Your task to perform on an android device: turn on the 12-hour format for clock Image 0: 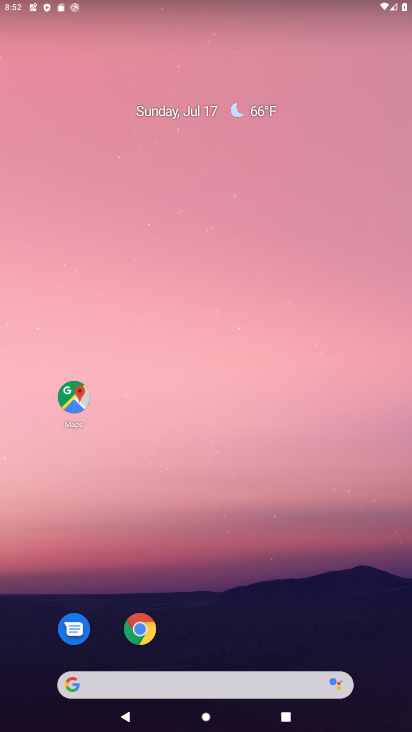
Step 0: press home button
Your task to perform on an android device: turn on the 12-hour format for clock Image 1: 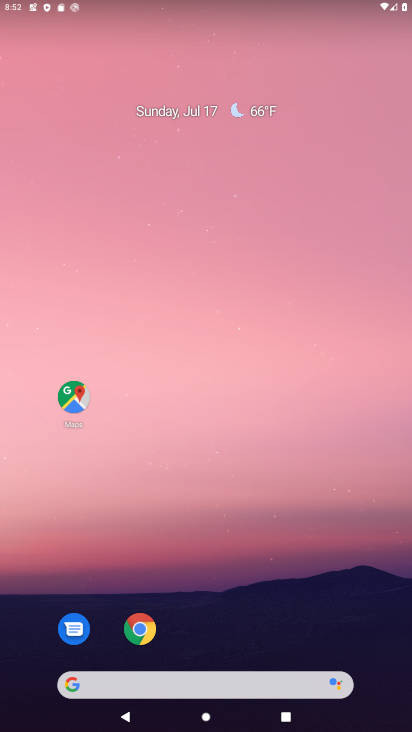
Step 1: drag from (213, 646) to (263, 17)
Your task to perform on an android device: turn on the 12-hour format for clock Image 2: 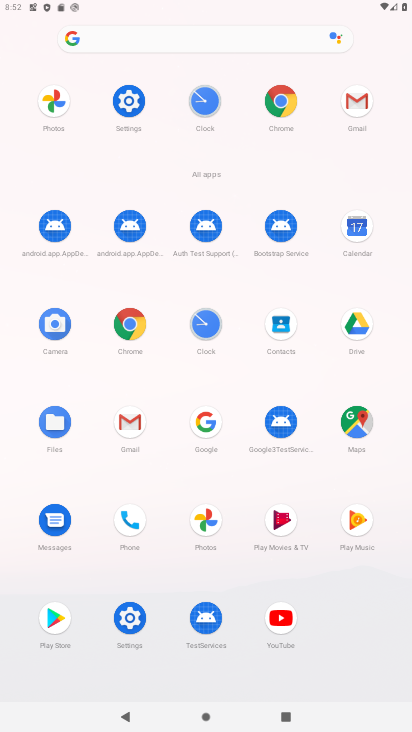
Step 2: click (207, 315)
Your task to perform on an android device: turn on the 12-hour format for clock Image 3: 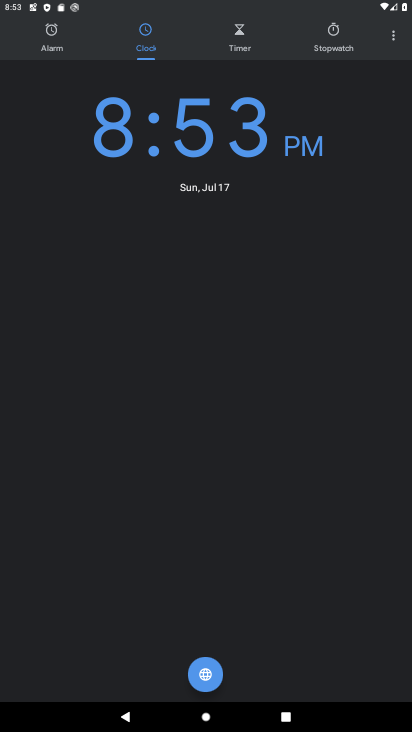
Step 3: click (394, 36)
Your task to perform on an android device: turn on the 12-hour format for clock Image 4: 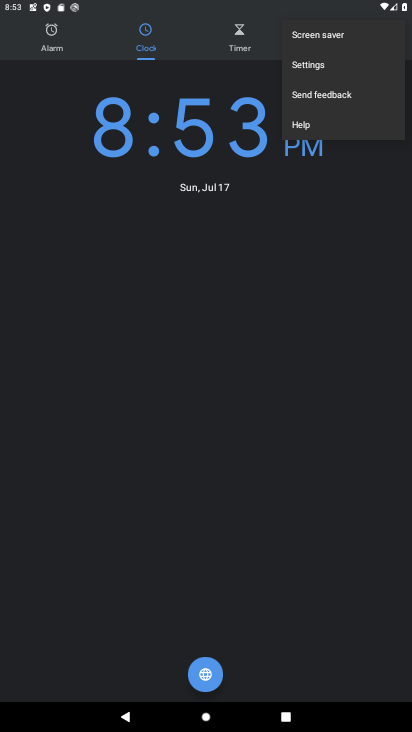
Step 4: click (326, 67)
Your task to perform on an android device: turn on the 12-hour format for clock Image 5: 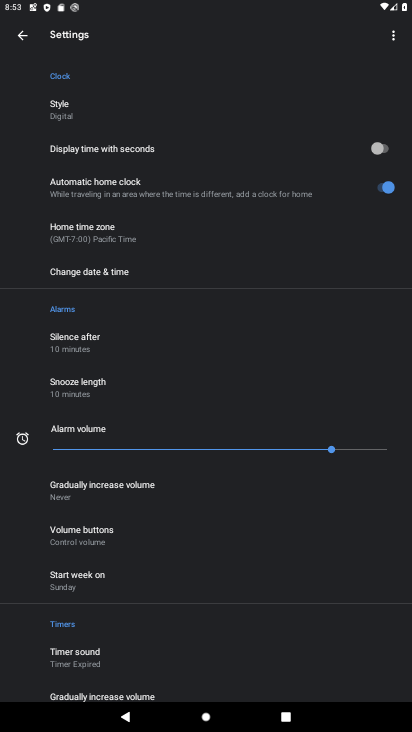
Step 5: click (114, 273)
Your task to perform on an android device: turn on the 12-hour format for clock Image 6: 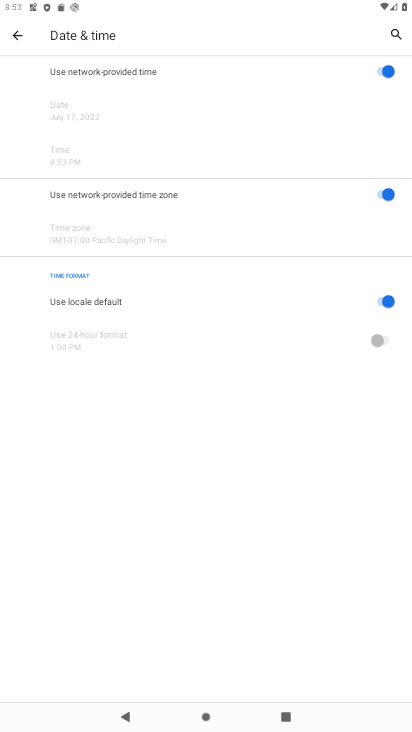
Step 6: task complete